Your task to perform on an android device: move a message to another label in the gmail app Image 0: 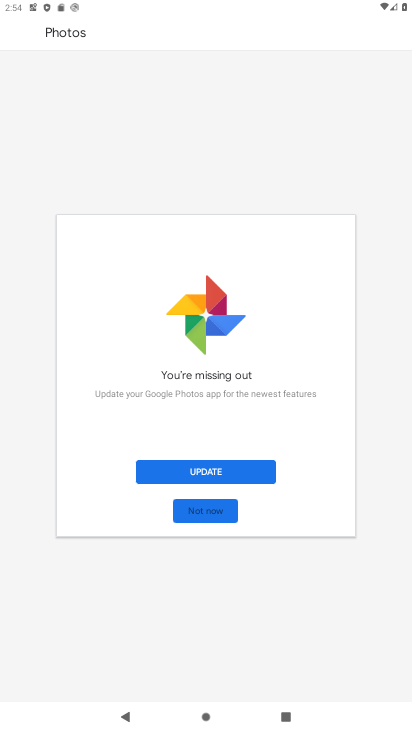
Step 0: press home button
Your task to perform on an android device: move a message to another label in the gmail app Image 1: 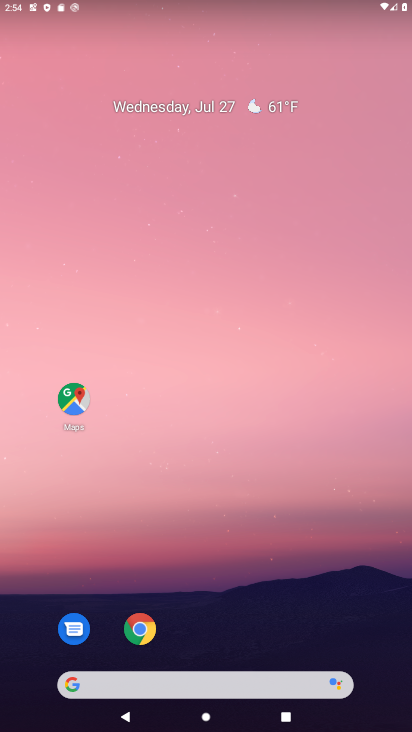
Step 1: drag from (193, 686) to (277, 88)
Your task to perform on an android device: move a message to another label in the gmail app Image 2: 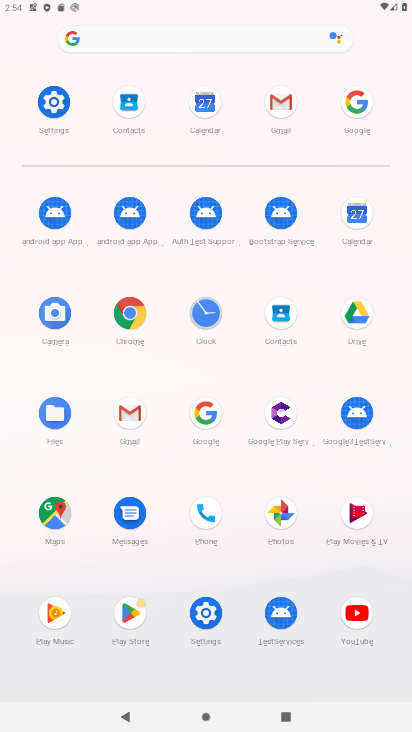
Step 2: click (277, 99)
Your task to perform on an android device: move a message to another label in the gmail app Image 3: 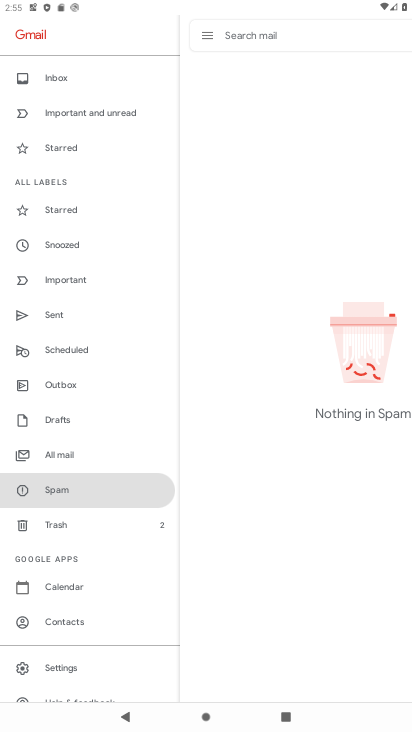
Step 3: click (51, 76)
Your task to perform on an android device: move a message to another label in the gmail app Image 4: 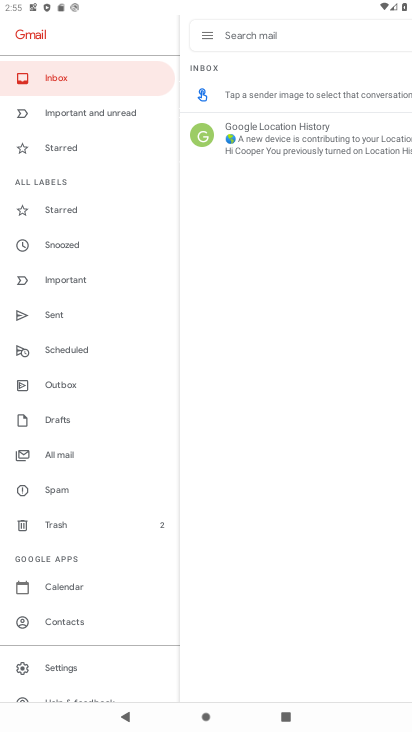
Step 4: click (299, 145)
Your task to perform on an android device: move a message to another label in the gmail app Image 5: 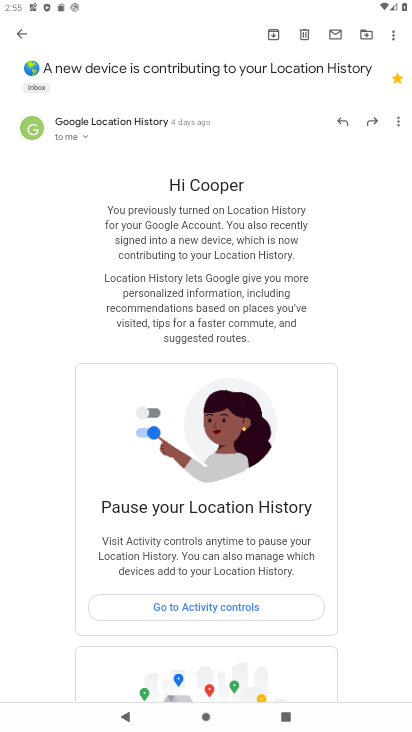
Step 5: click (393, 33)
Your task to perform on an android device: move a message to another label in the gmail app Image 6: 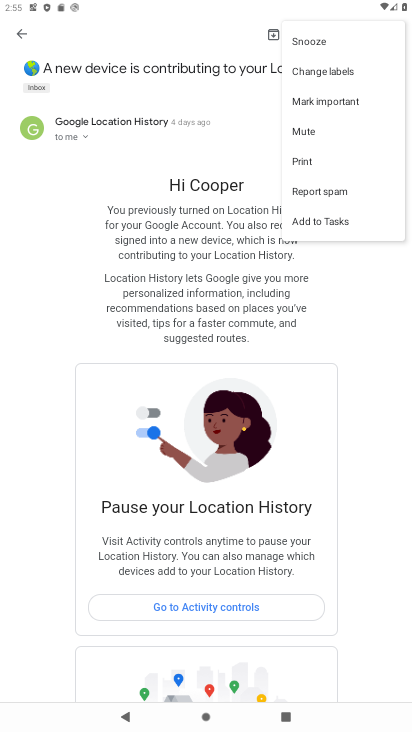
Step 6: click (325, 70)
Your task to perform on an android device: move a message to another label in the gmail app Image 7: 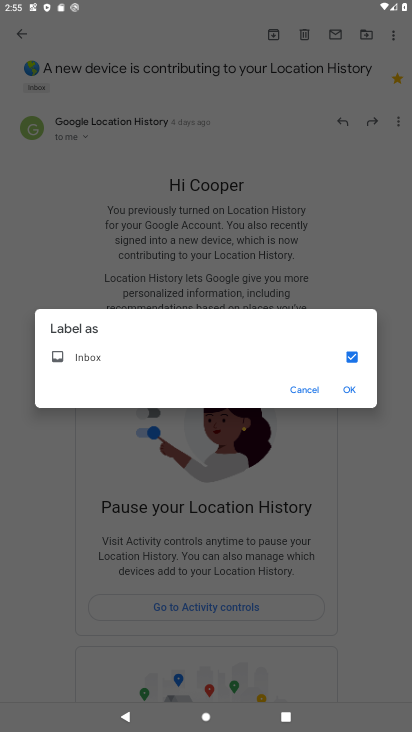
Step 7: click (352, 366)
Your task to perform on an android device: move a message to another label in the gmail app Image 8: 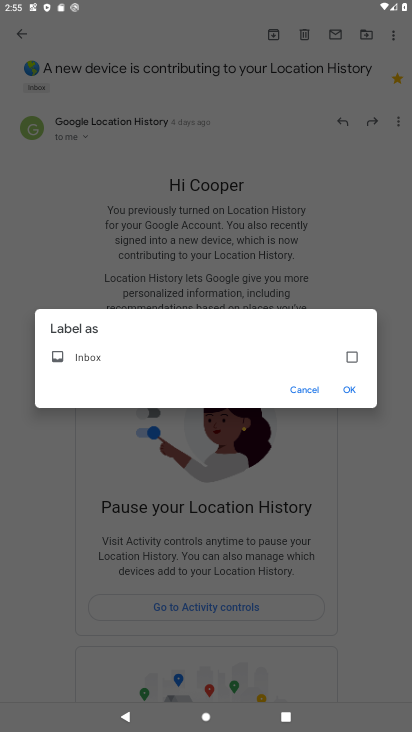
Step 8: click (349, 388)
Your task to perform on an android device: move a message to another label in the gmail app Image 9: 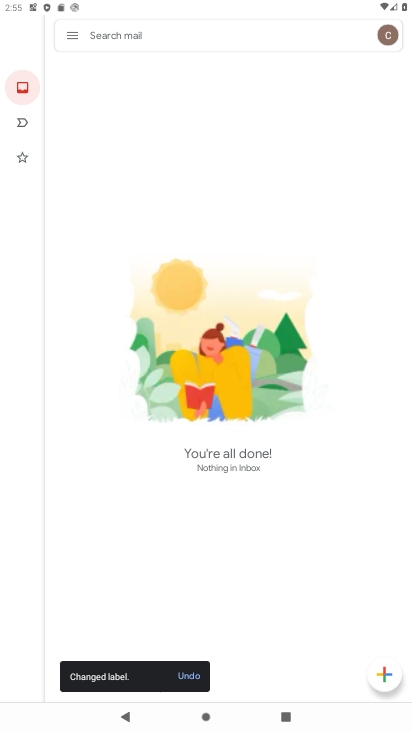
Step 9: task complete